Your task to perform on an android device: turn on translation in the chrome app Image 0: 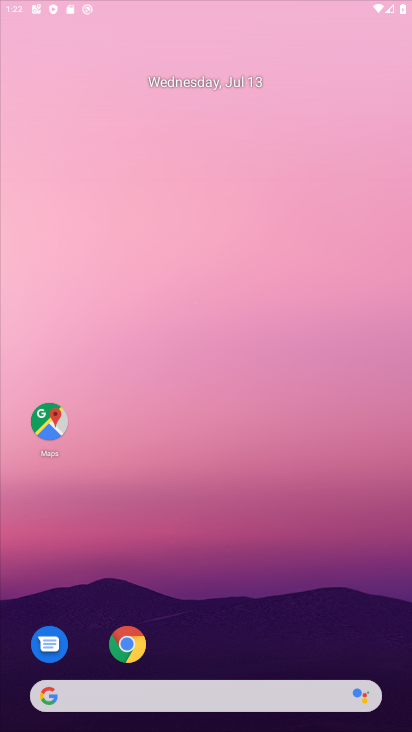
Step 0: press home button
Your task to perform on an android device: turn on translation in the chrome app Image 1: 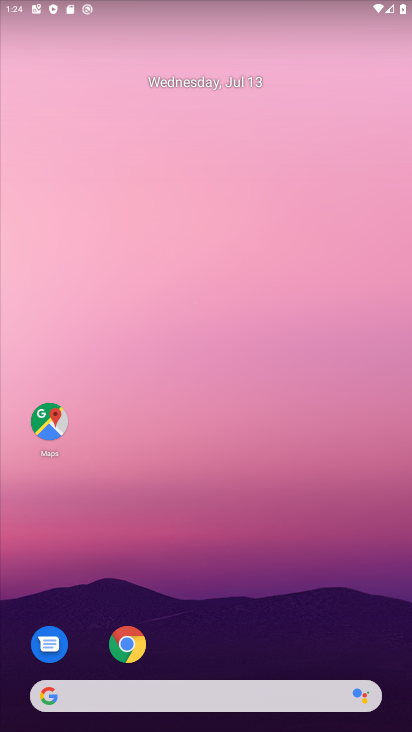
Step 1: click (124, 639)
Your task to perform on an android device: turn on translation in the chrome app Image 2: 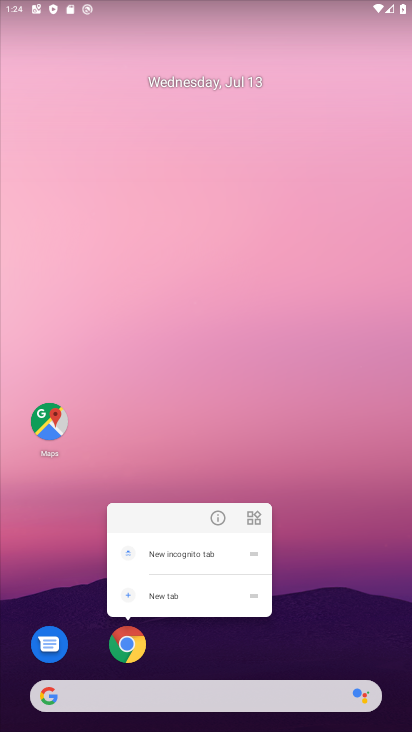
Step 2: click (119, 647)
Your task to perform on an android device: turn on translation in the chrome app Image 3: 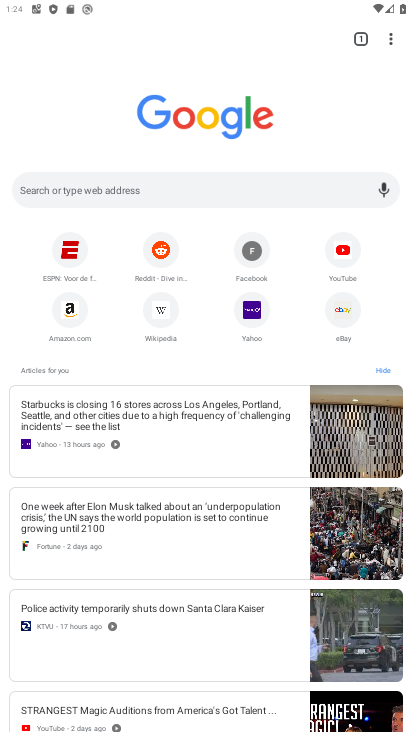
Step 3: click (394, 42)
Your task to perform on an android device: turn on translation in the chrome app Image 4: 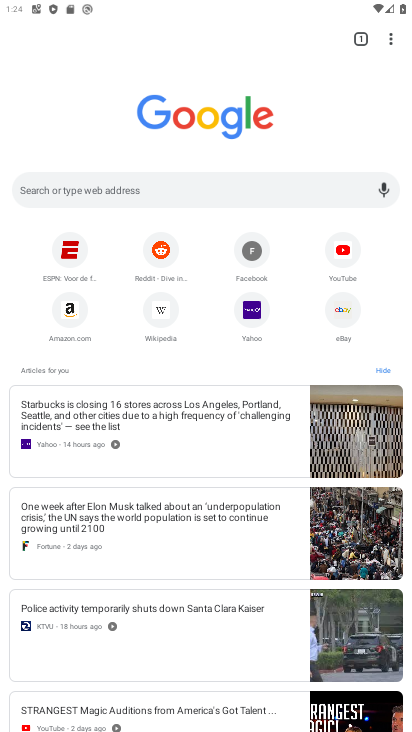
Step 4: drag from (385, 34) to (292, 323)
Your task to perform on an android device: turn on translation in the chrome app Image 5: 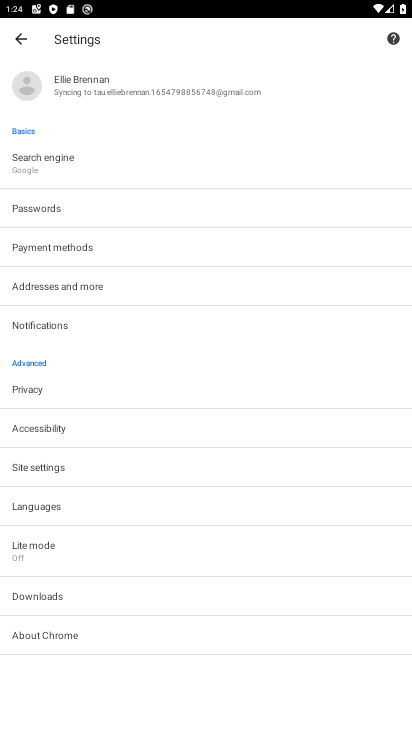
Step 5: click (30, 500)
Your task to perform on an android device: turn on translation in the chrome app Image 6: 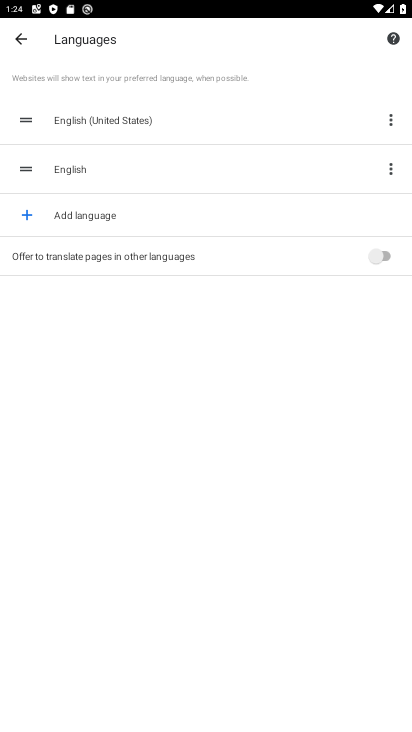
Step 6: click (380, 253)
Your task to perform on an android device: turn on translation in the chrome app Image 7: 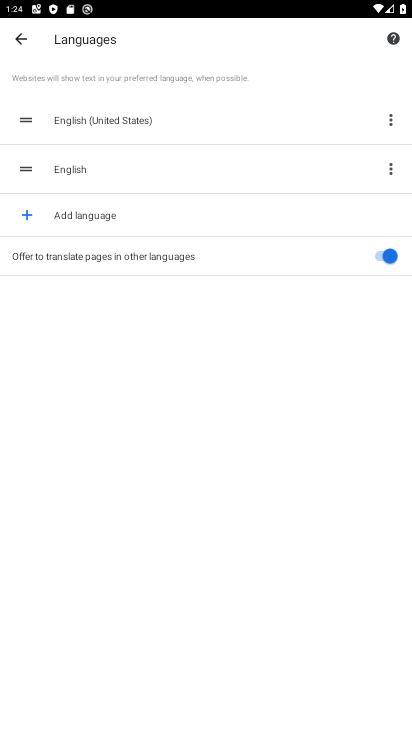
Step 7: task complete